Your task to perform on an android device: Go to Android settings Image 0: 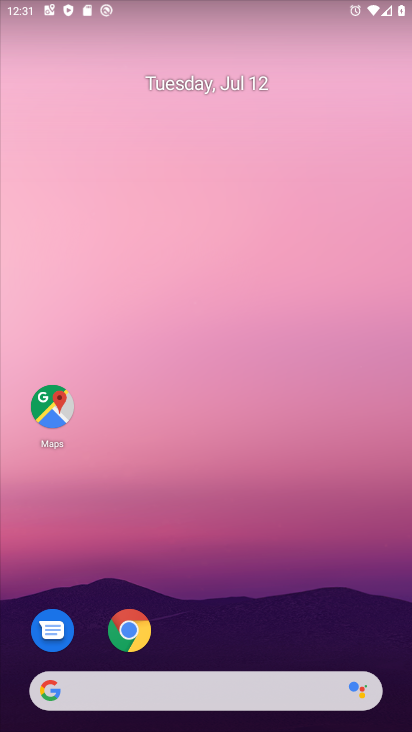
Step 0: drag from (191, 676) to (263, 272)
Your task to perform on an android device: Go to Android settings Image 1: 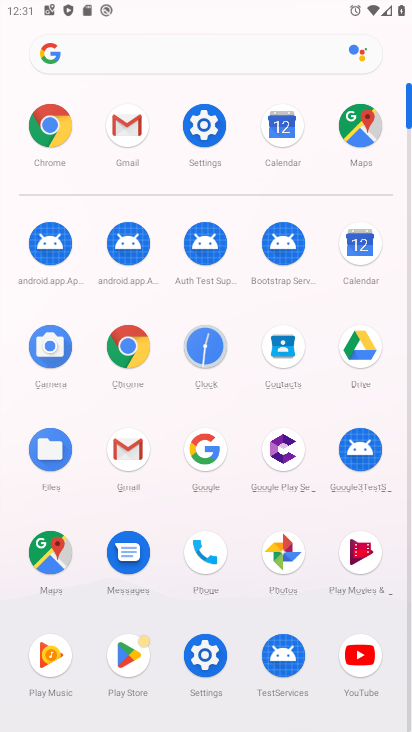
Step 1: click (201, 122)
Your task to perform on an android device: Go to Android settings Image 2: 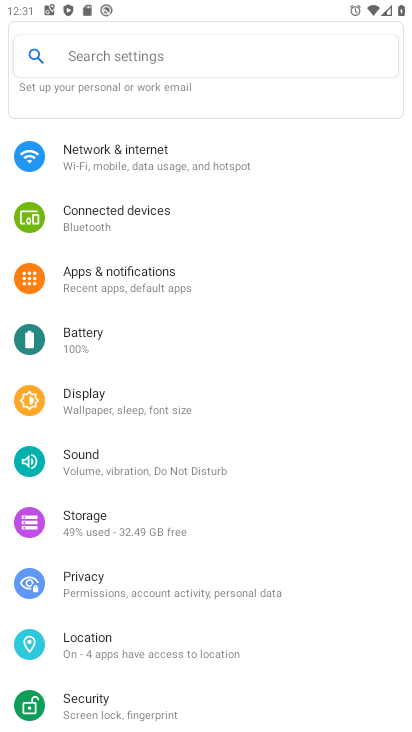
Step 2: task complete